Your task to perform on an android device: Go to calendar. Show me events next week Image 0: 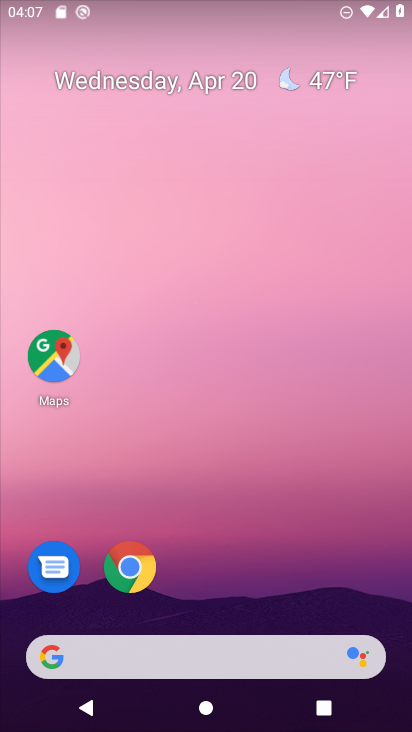
Step 0: click (225, 95)
Your task to perform on an android device: Go to calendar. Show me events next week Image 1: 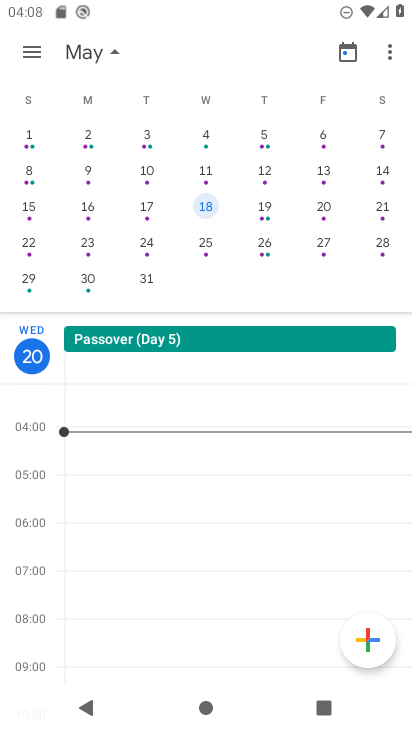
Step 1: click (214, 247)
Your task to perform on an android device: Go to calendar. Show me events next week Image 2: 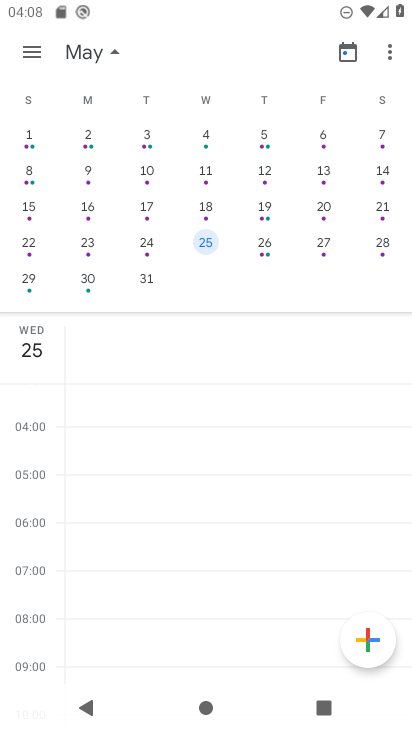
Step 2: task complete